Your task to perform on an android device: snooze an email in the gmail app Image 0: 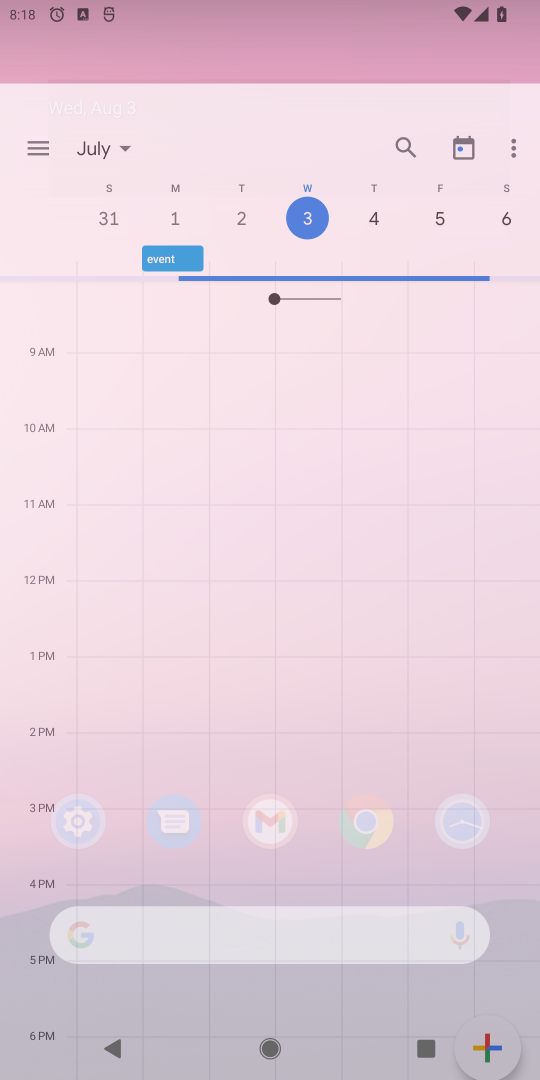
Step 0: press home button
Your task to perform on an android device: snooze an email in the gmail app Image 1: 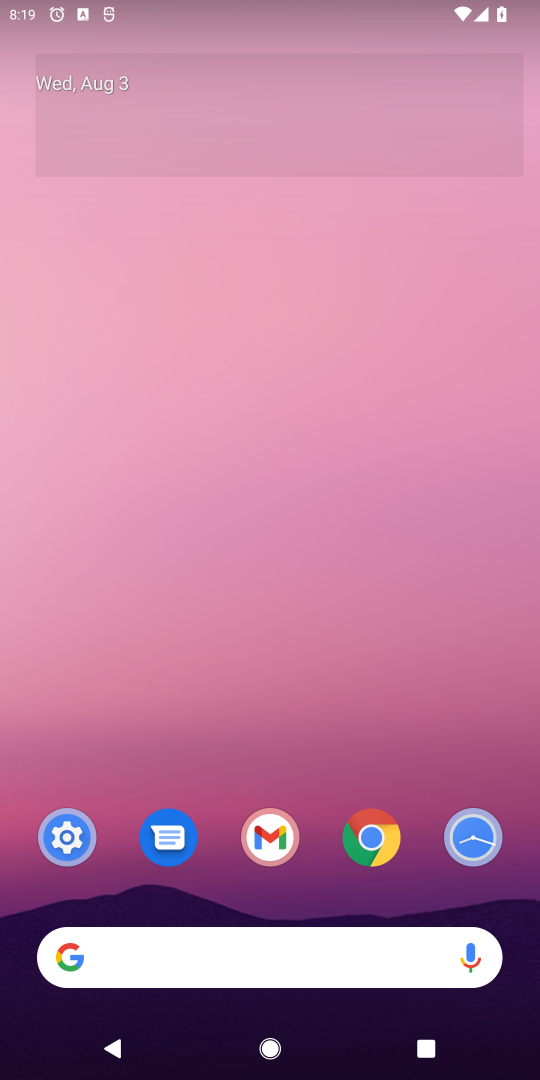
Step 1: click (267, 839)
Your task to perform on an android device: snooze an email in the gmail app Image 2: 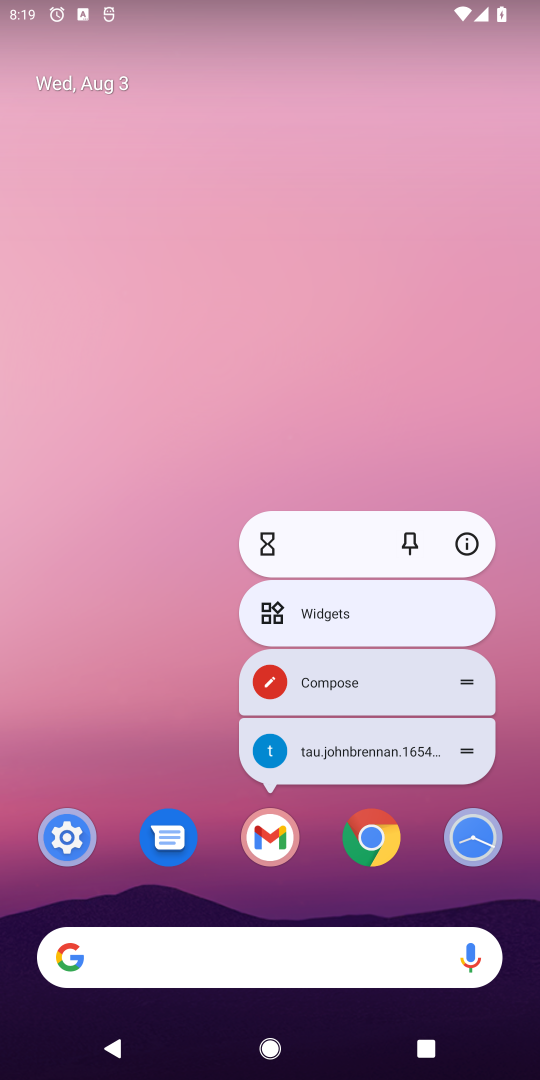
Step 2: click (267, 839)
Your task to perform on an android device: snooze an email in the gmail app Image 3: 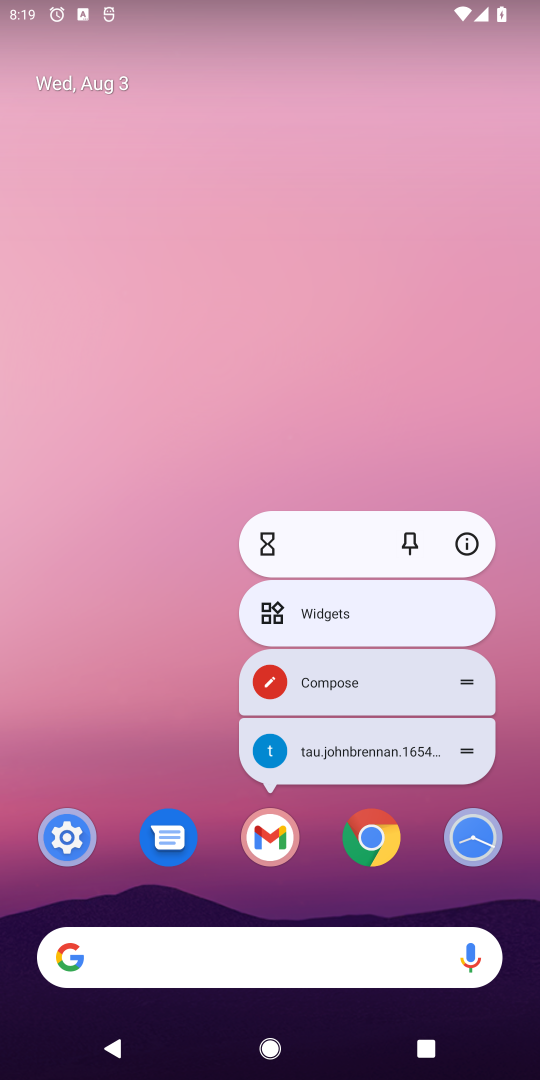
Step 3: click (263, 854)
Your task to perform on an android device: snooze an email in the gmail app Image 4: 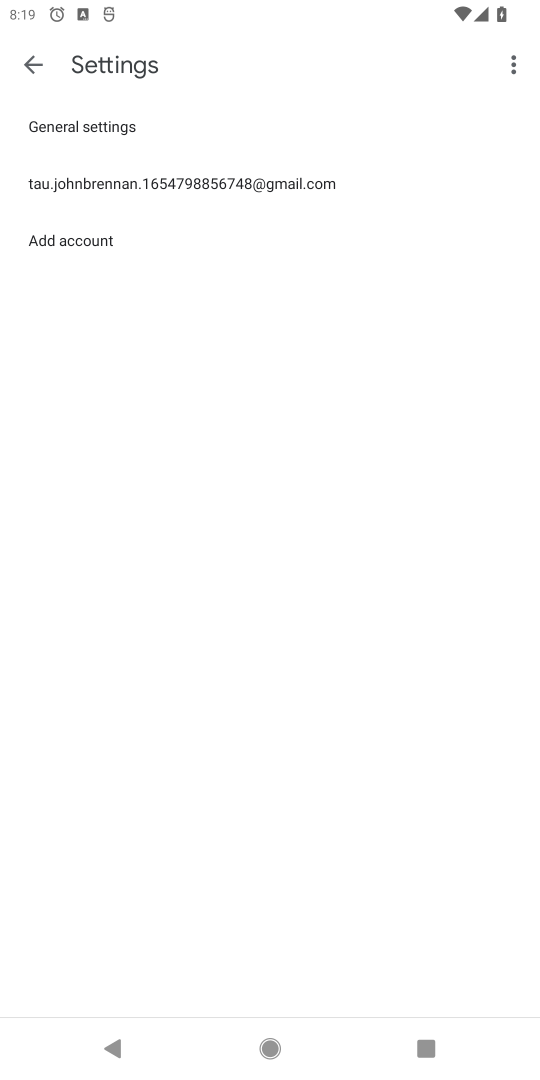
Step 4: click (33, 62)
Your task to perform on an android device: snooze an email in the gmail app Image 5: 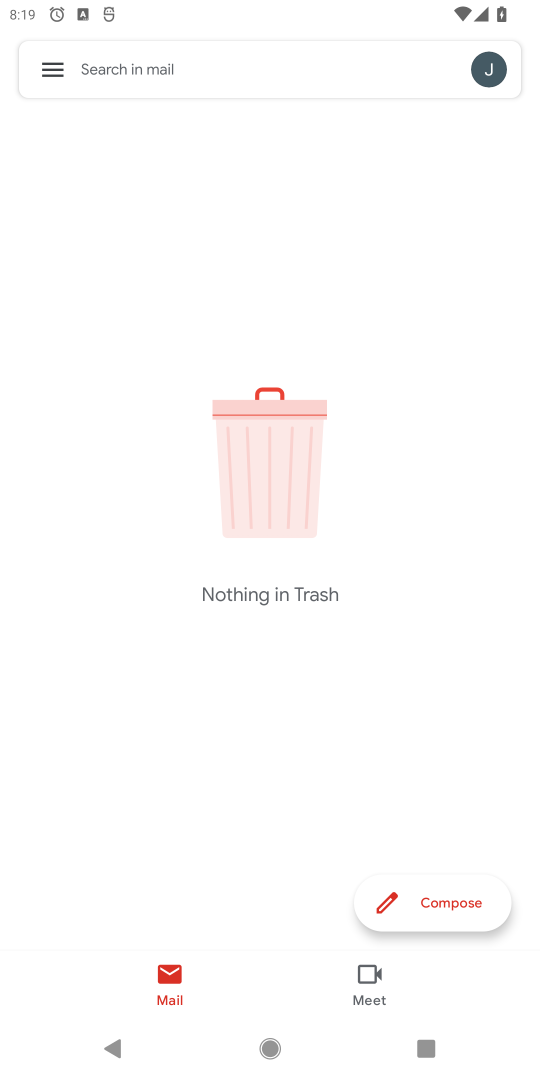
Step 5: click (49, 65)
Your task to perform on an android device: snooze an email in the gmail app Image 6: 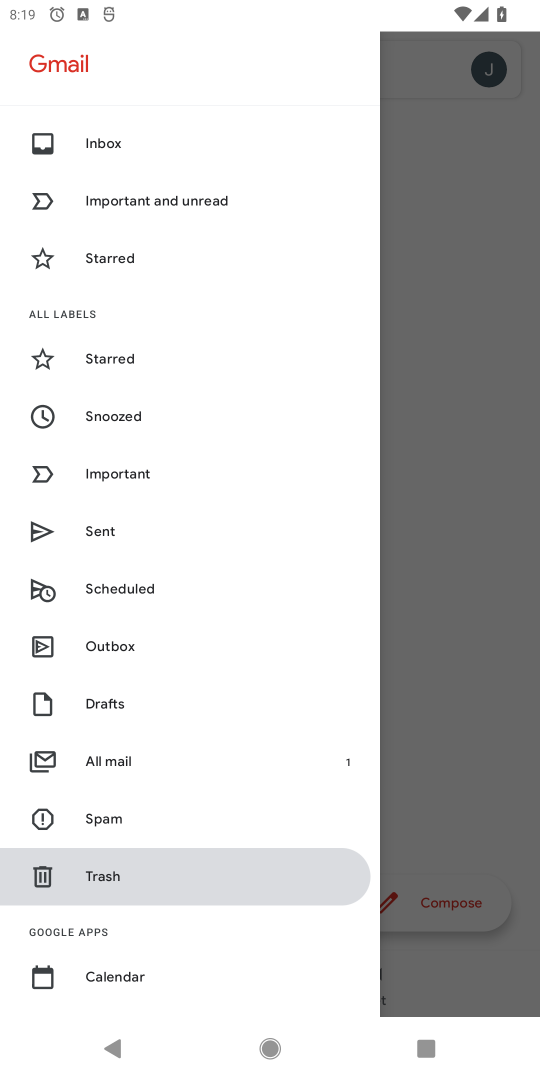
Step 6: click (113, 755)
Your task to perform on an android device: snooze an email in the gmail app Image 7: 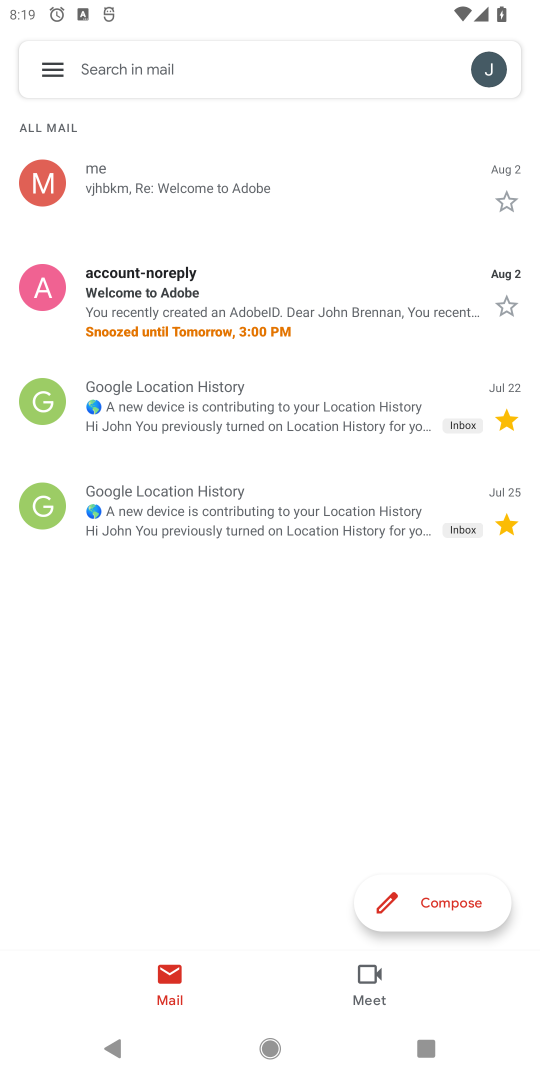
Step 7: click (241, 318)
Your task to perform on an android device: snooze an email in the gmail app Image 8: 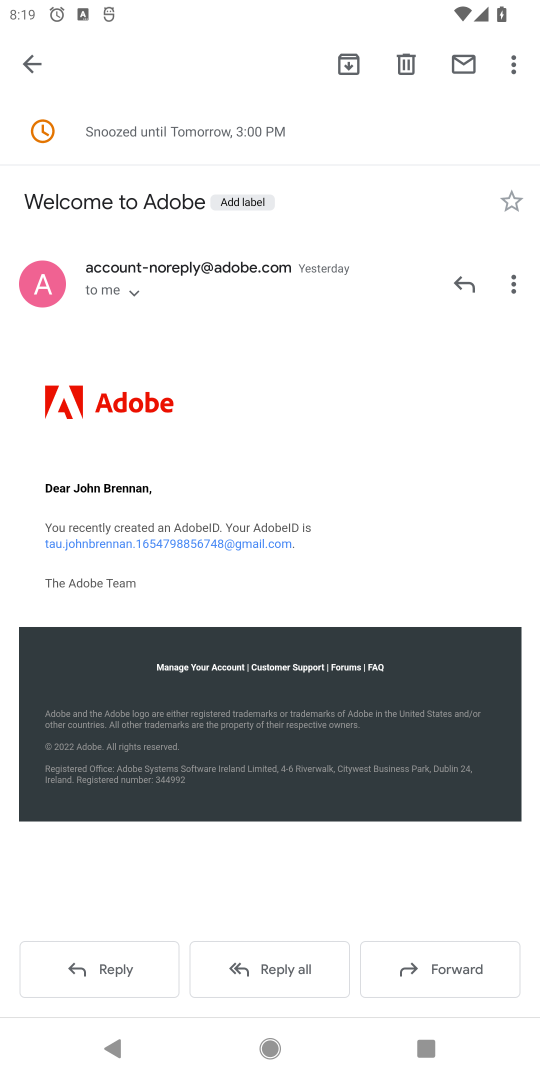
Step 8: click (519, 63)
Your task to perform on an android device: snooze an email in the gmail app Image 9: 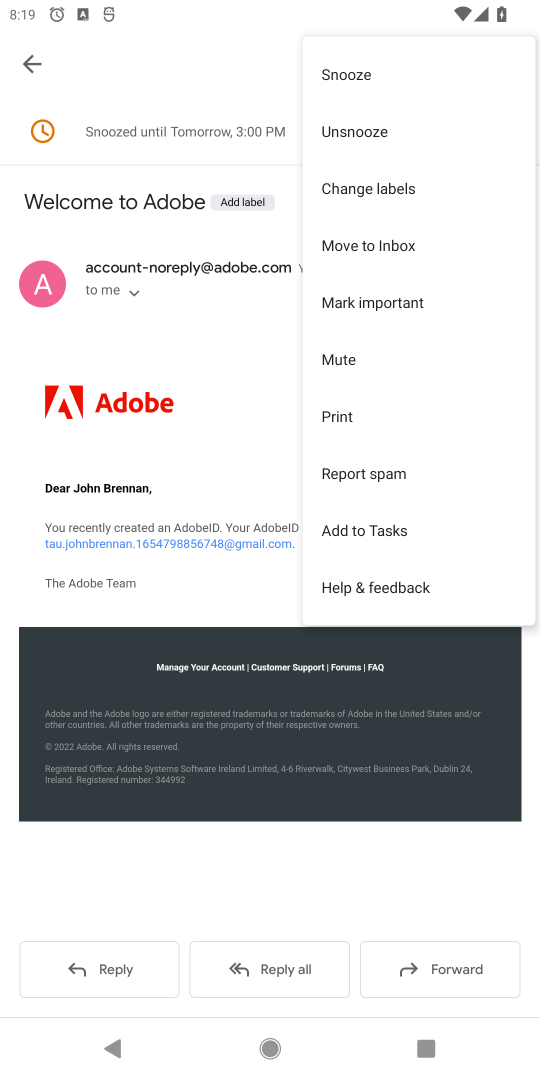
Step 9: click (352, 80)
Your task to perform on an android device: snooze an email in the gmail app Image 10: 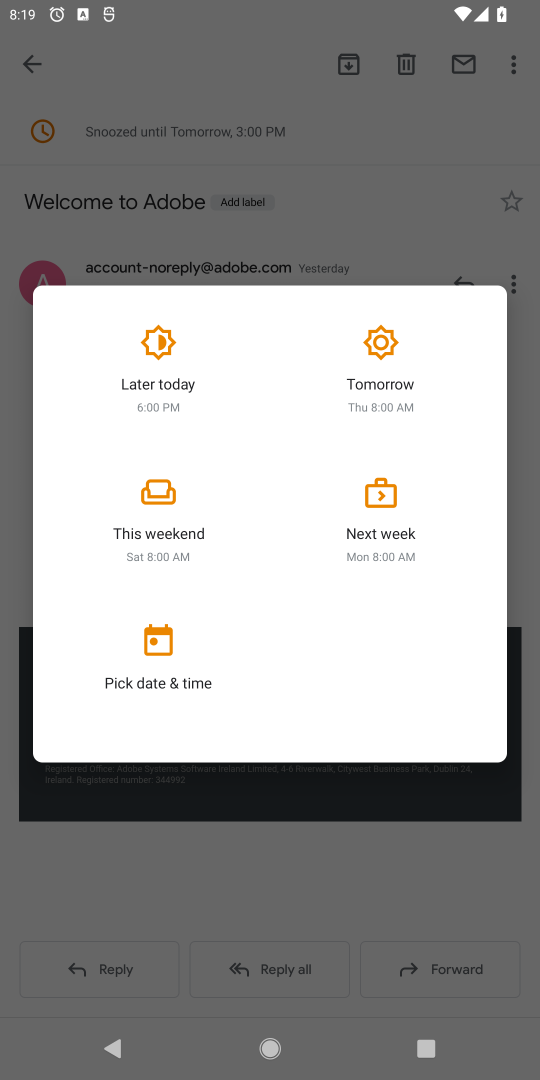
Step 10: click (150, 348)
Your task to perform on an android device: snooze an email in the gmail app Image 11: 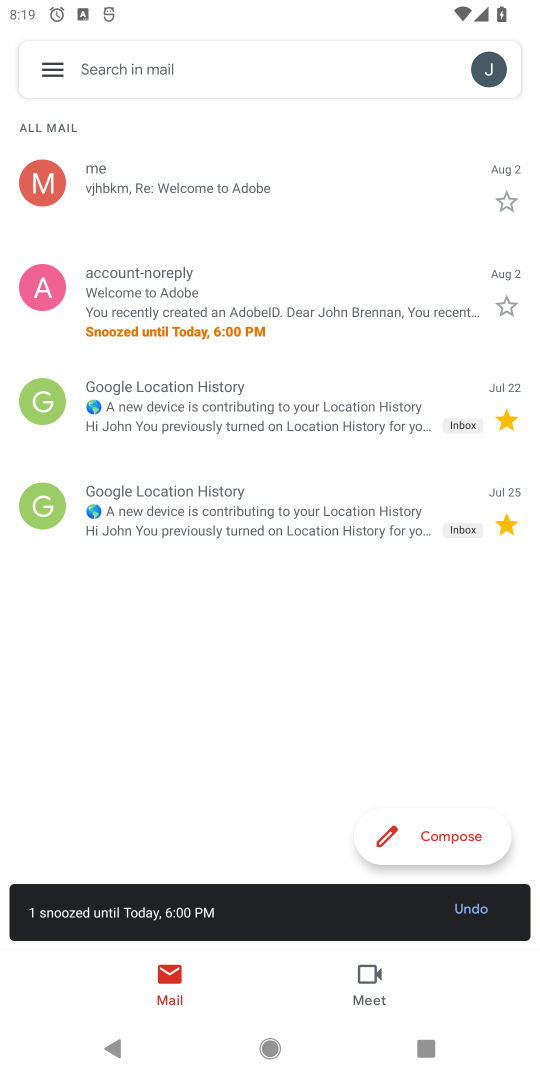
Step 11: task complete